Your task to perform on an android device: uninstall "Booking.com: Hotels and more" Image 0: 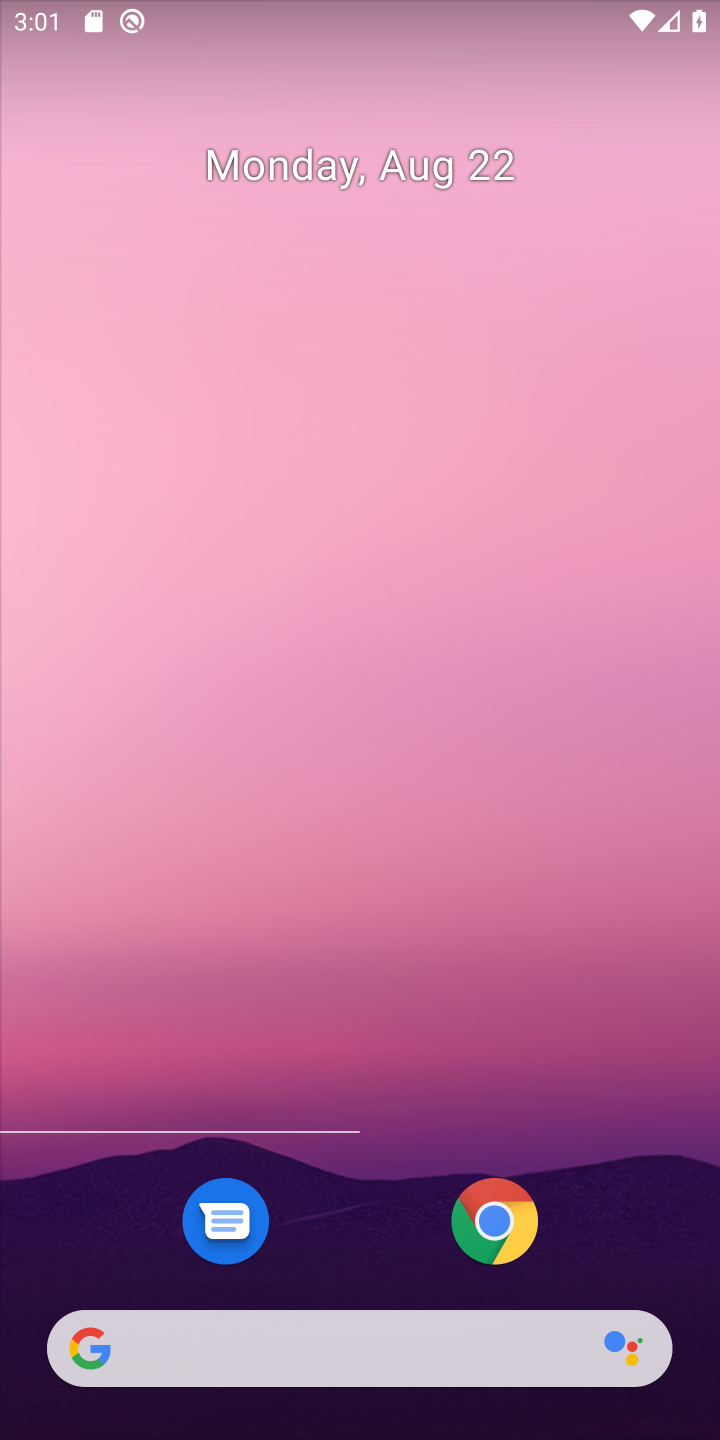
Step 0: press home button
Your task to perform on an android device: uninstall "Booking.com: Hotels and more" Image 1: 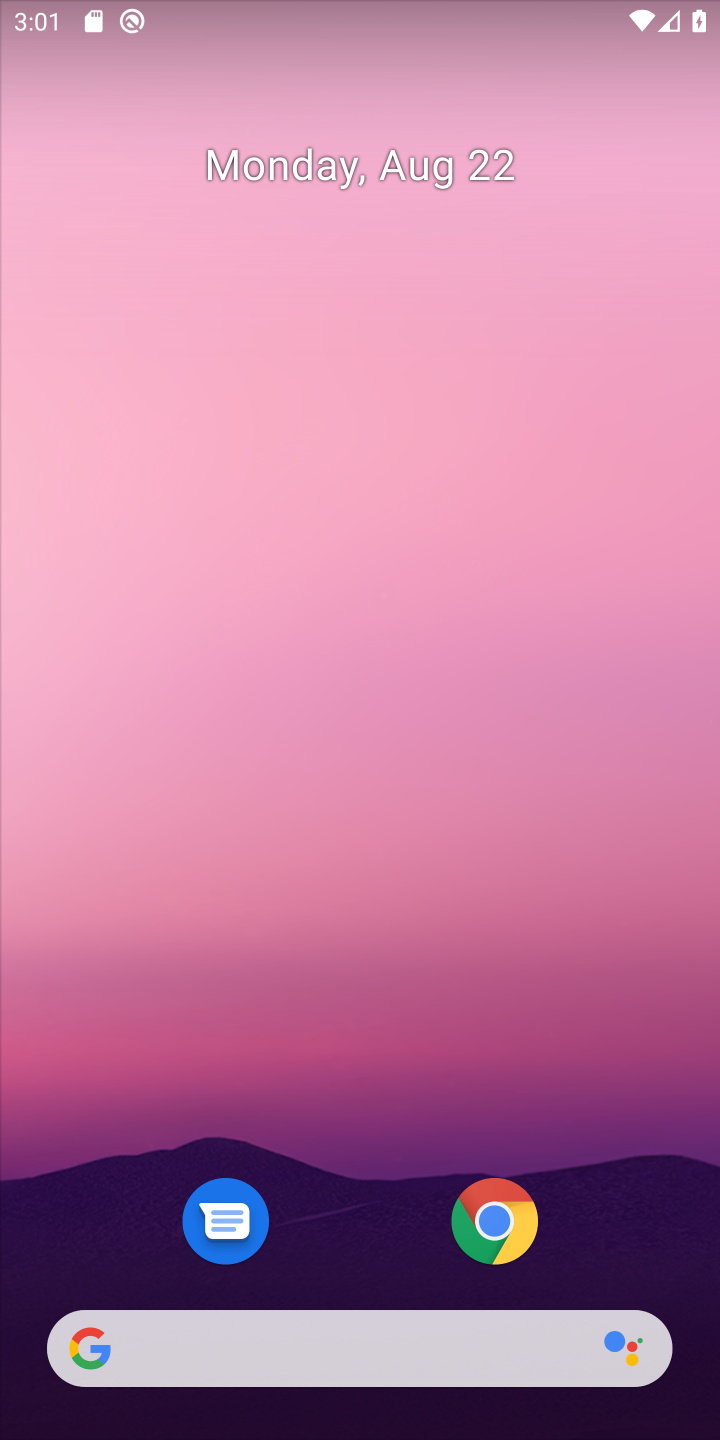
Step 1: drag from (367, 1068) to (408, 0)
Your task to perform on an android device: uninstall "Booking.com: Hotels and more" Image 2: 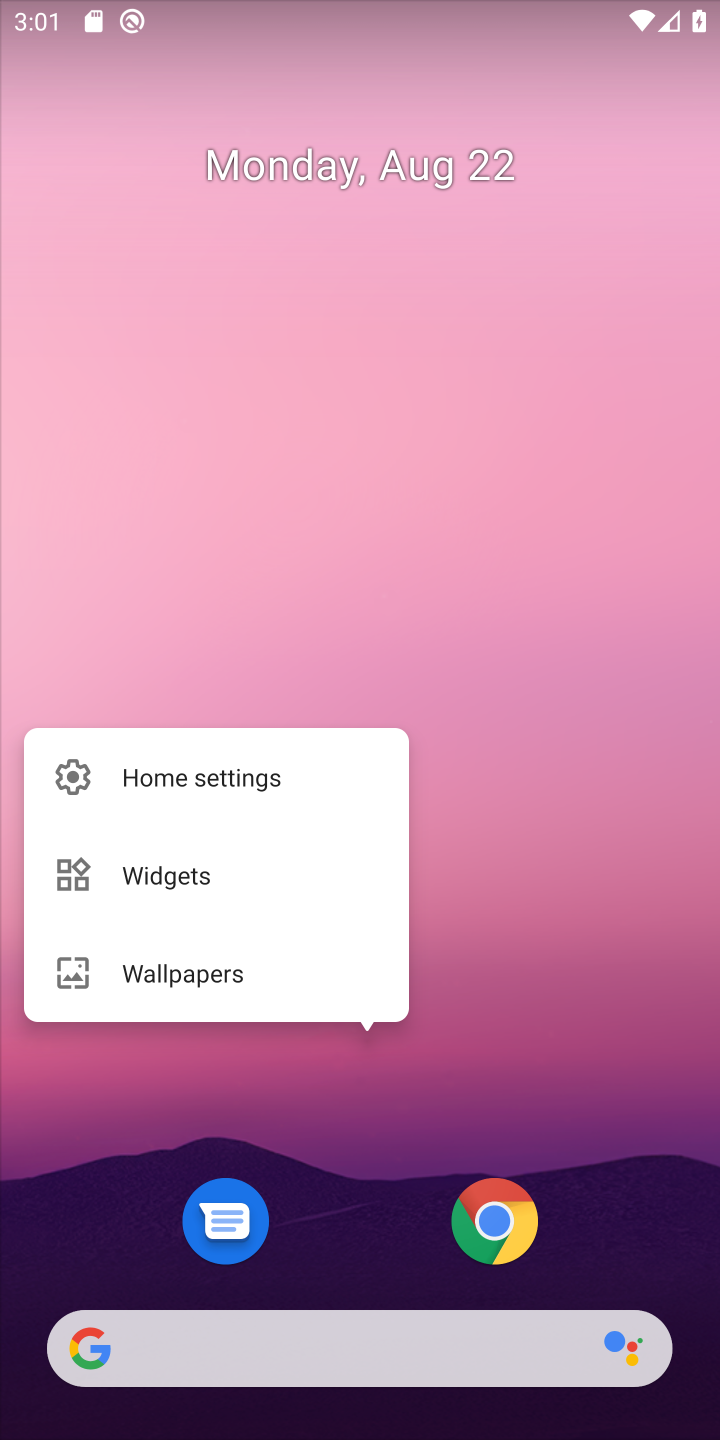
Step 2: click (392, 1269)
Your task to perform on an android device: uninstall "Booking.com: Hotels and more" Image 3: 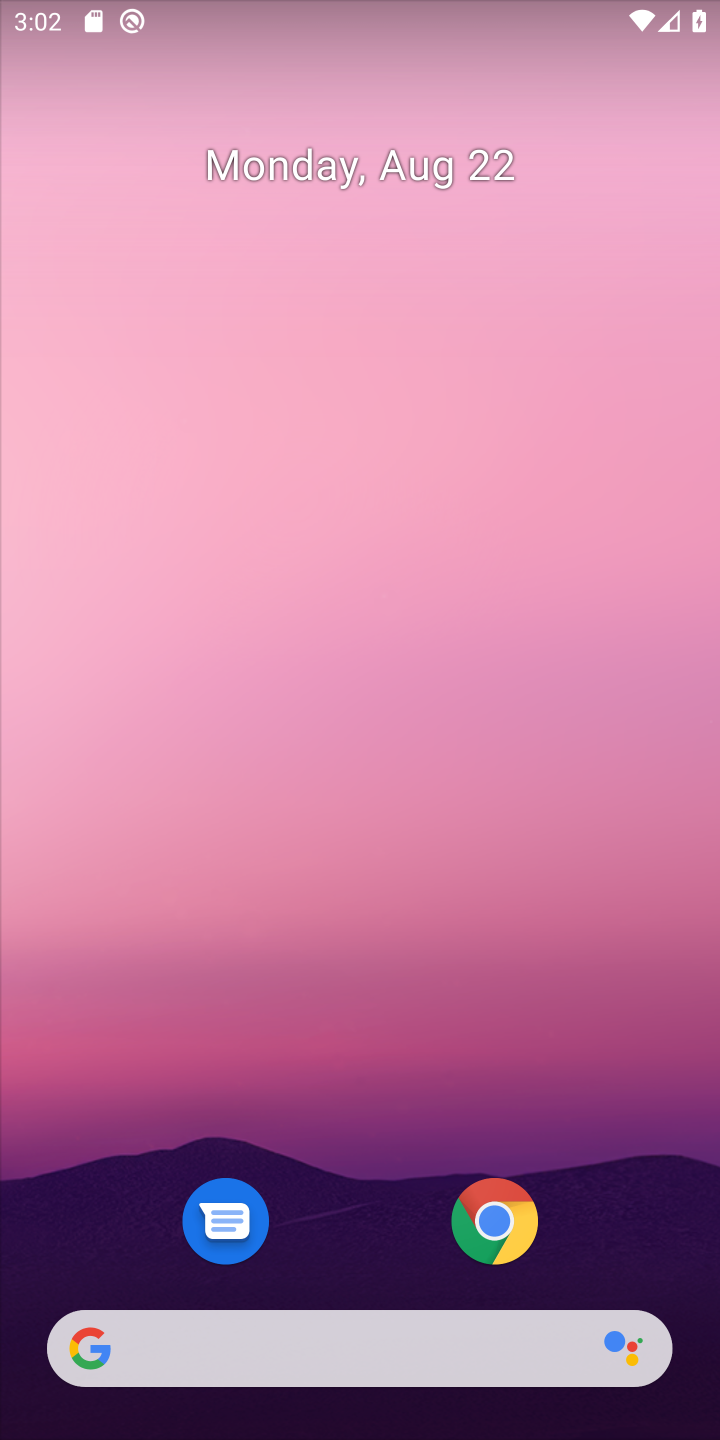
Step 3: drag from (359, 1266) to (475, 1)
Your task to perform on an android device: uninstall "Booking.com: Hotels and more" Image 4: 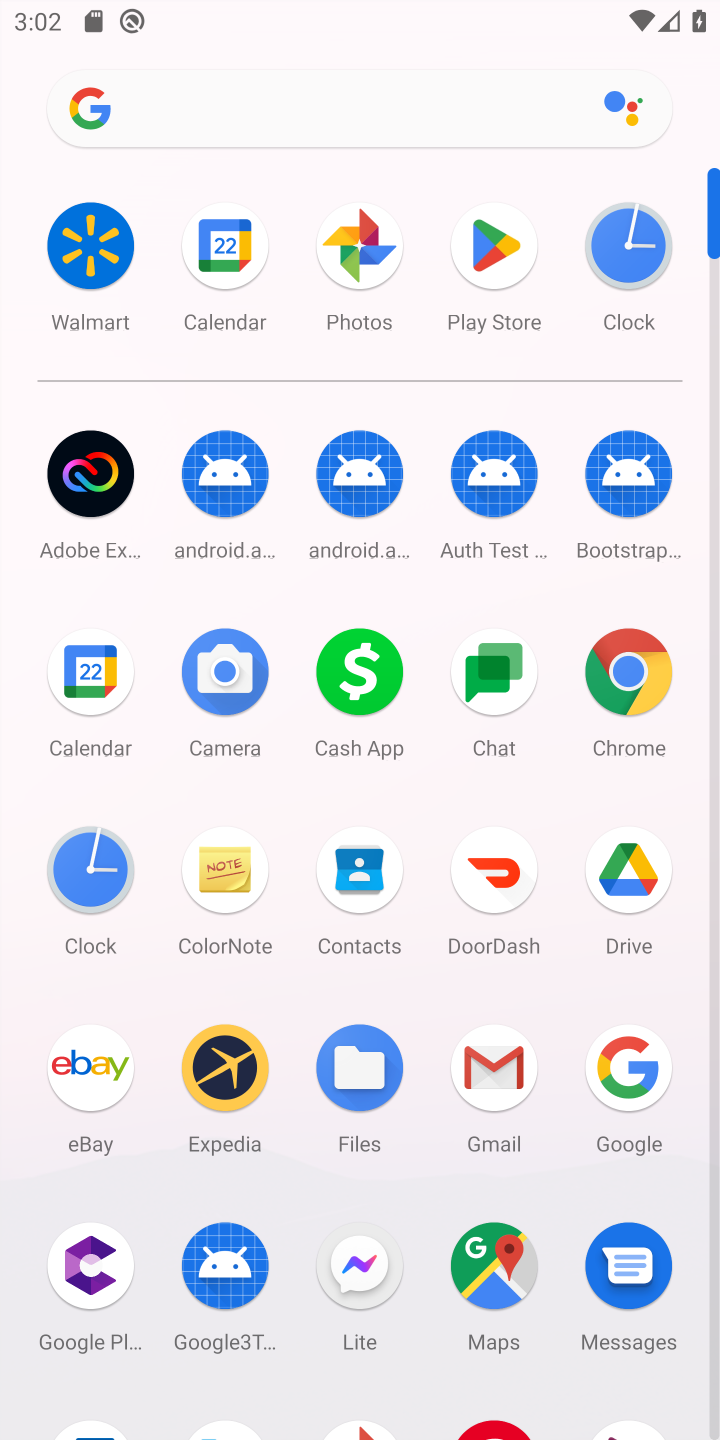
Step 4: click (490, 236)
Your task to perform on an android device: uninstall "Booking.com: Hotels and more" Image 5: 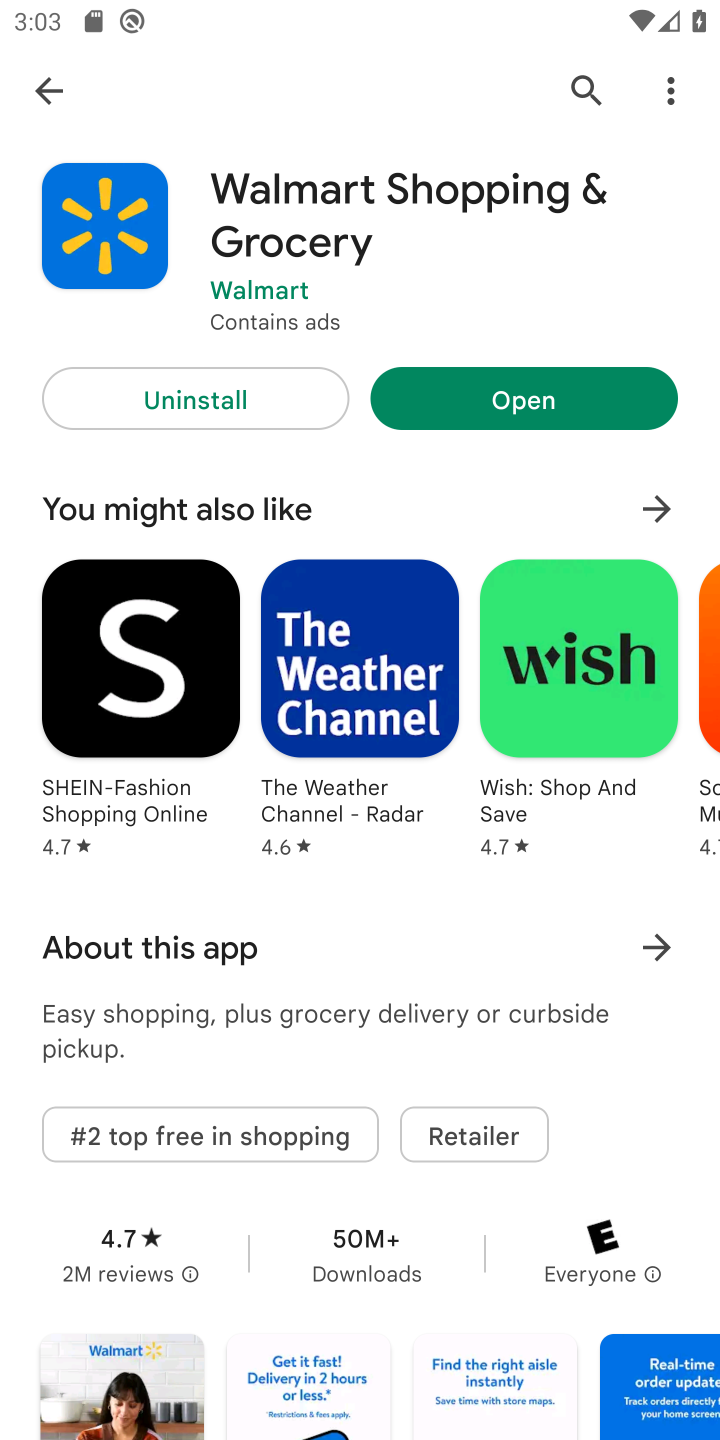
Step 5: click (568, 93)
Your task to perform on an android device: uninstall "Booking.com: Hotels and more" Image 6: 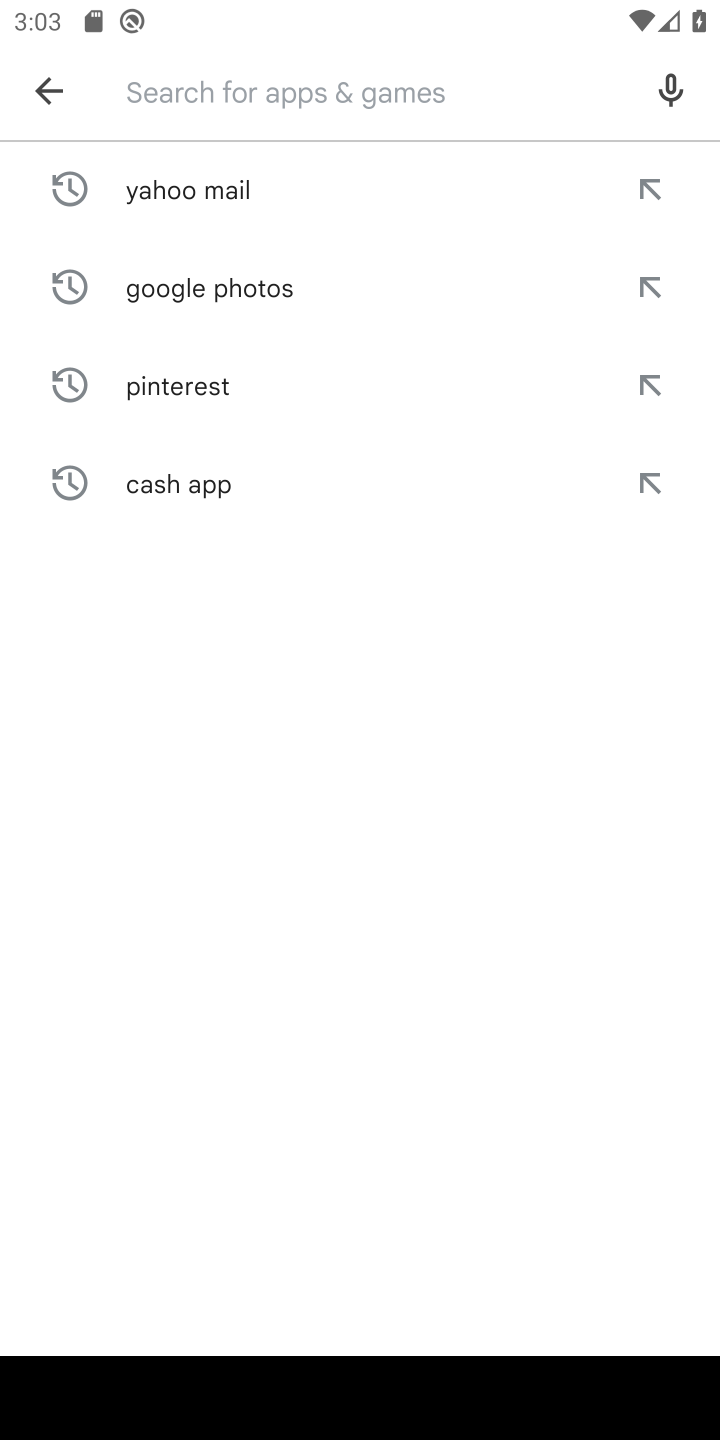
Step 6: type "Booking.com: Hotels and more"
Your task to perform on an android device: uninstall "Booking.com: Hotels and more" Image 7: 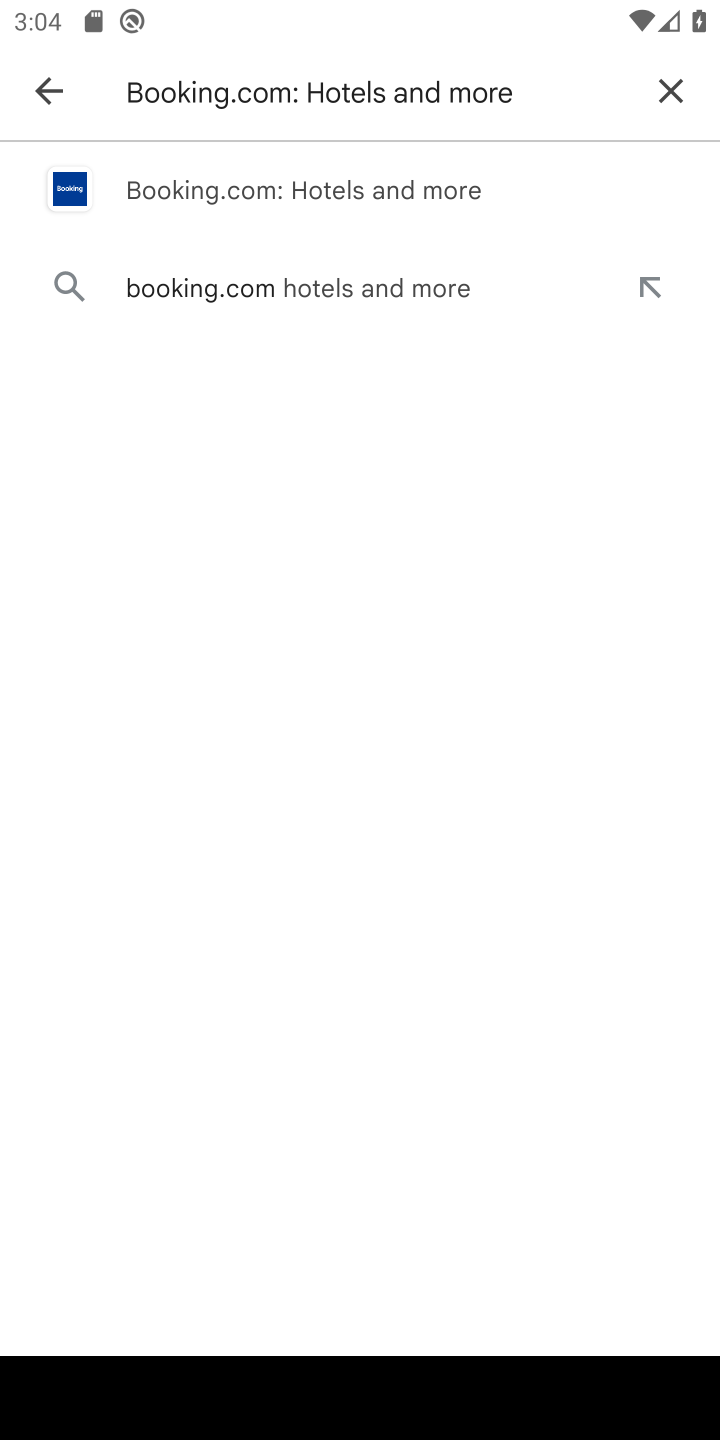
Step 7: click (290, 189)
Your task to perform on an android device: uninstall "Booking.com: Hotels and more" Image 8: 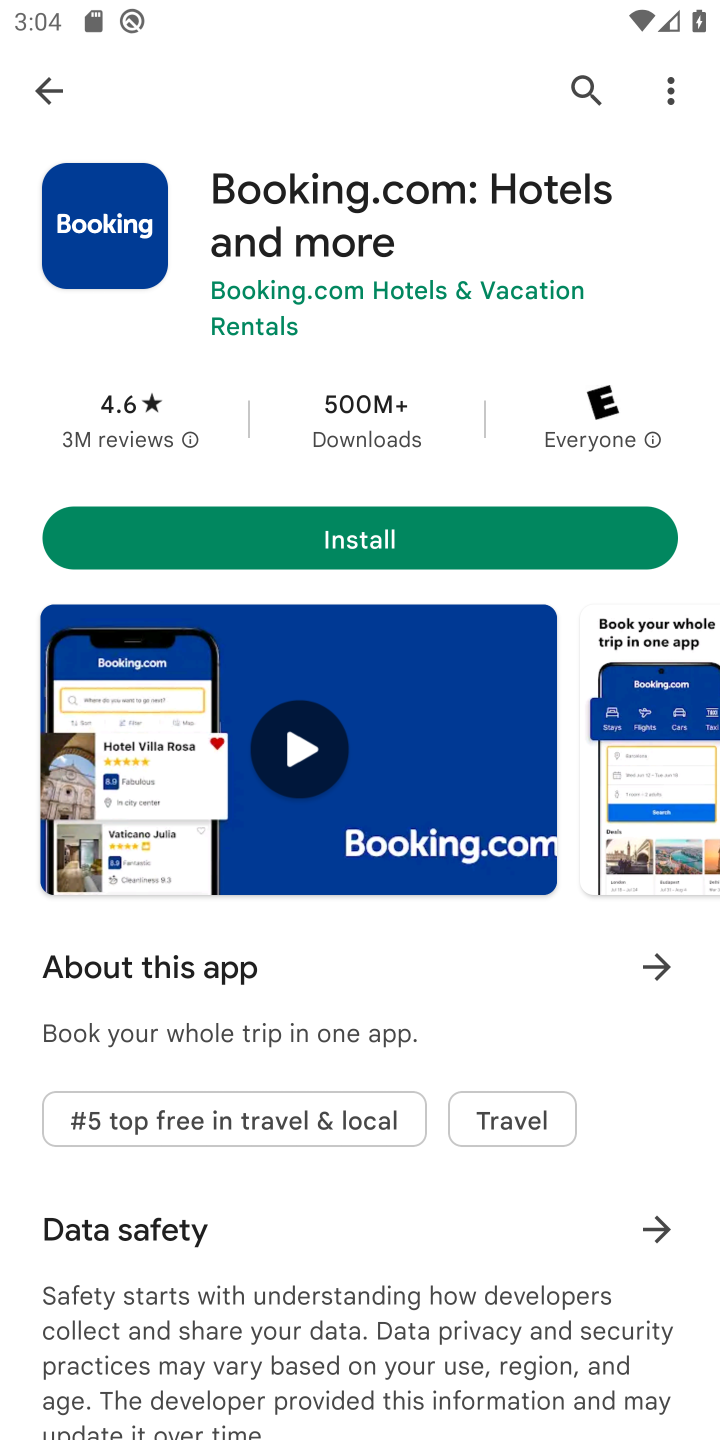
Step 8: task complete